Your task to perform on an android device: change keyboard looks Image 0: 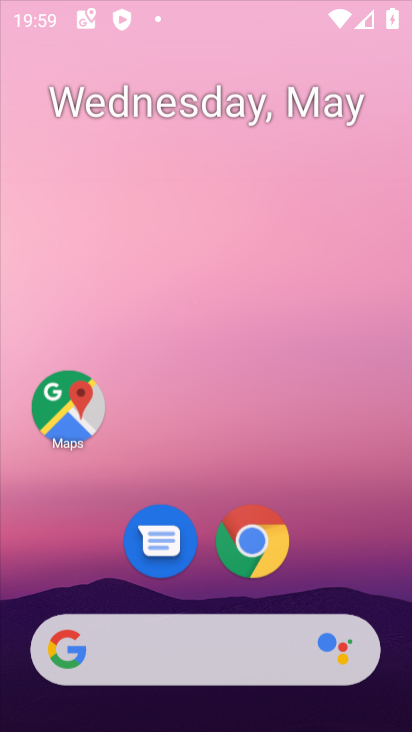
Step 0: click (224, 96)
Your task to perform on an android device: change keyboard looks Image 1: 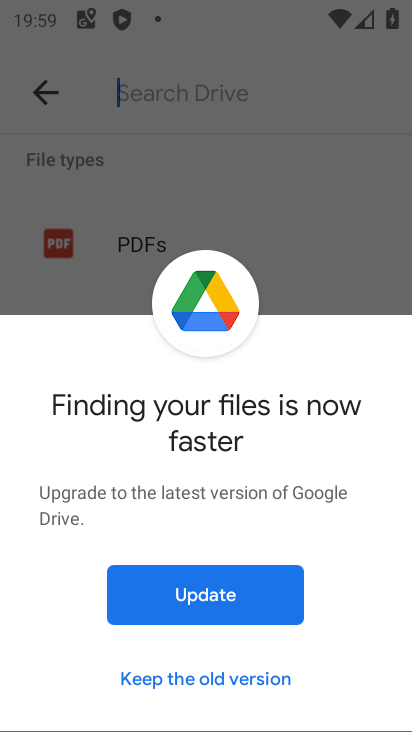
Step 1: press home button
Your task to perform on an android device: change keyboard looks Image 2: 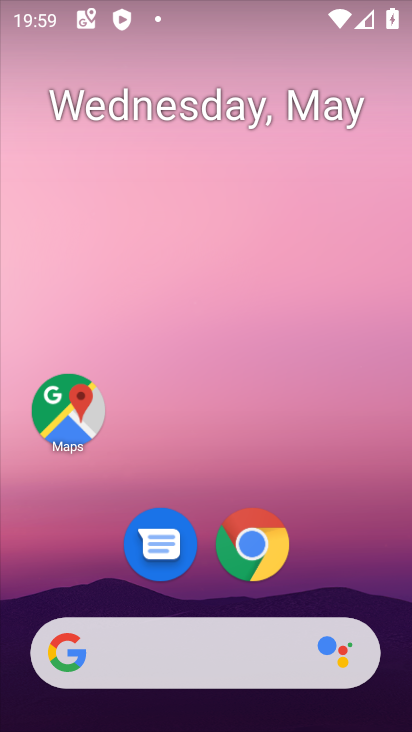
Step 2: drag from (202, 579) to (228, 96)
Your task to perform on an android device: change keyboard looks Image 3: 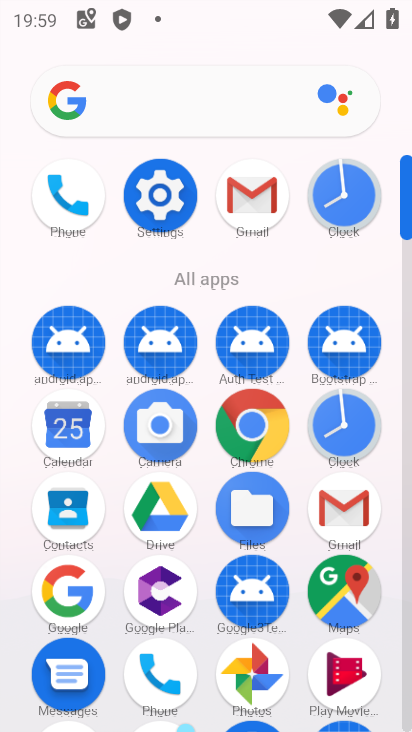
Step 3: click (170, 196)
Your task to perform on an android device: change keyboard looks Image 4: 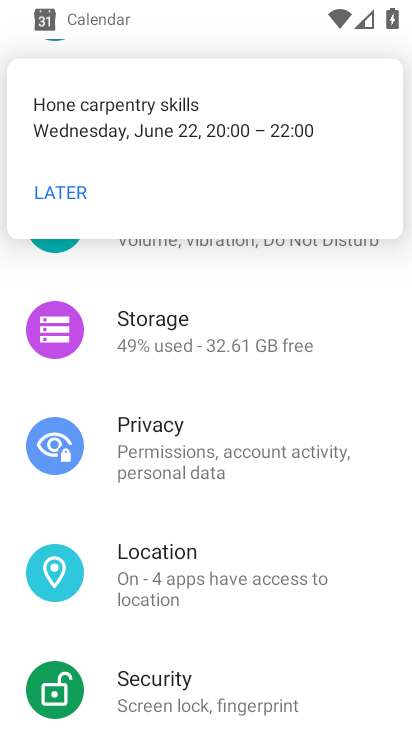
Step 4: drag from (116, 659) to (211, 171)
Your task to perform on an android device: change keyboard looks Image 5: 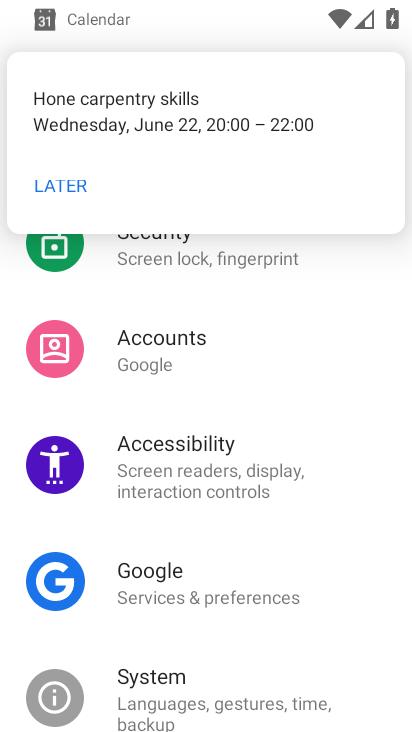
Step 5: drag from (124, 669) to (242, 212)
Your task to perform on an android device: change keyboard looks Image 6: 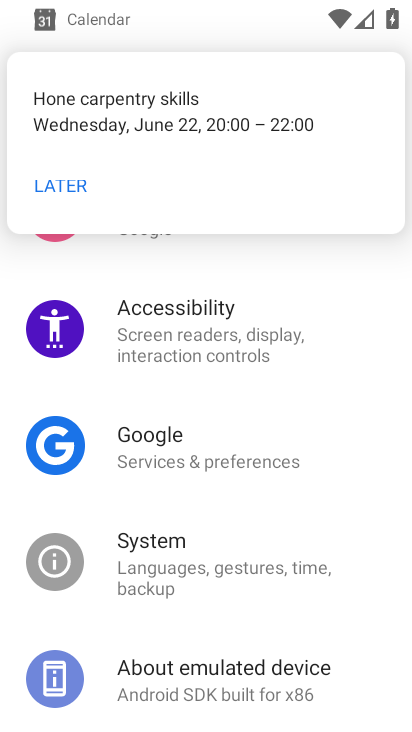
Step 6: click (142, 587)
Your task to perform on an android device: change keyboard looks Image 7: 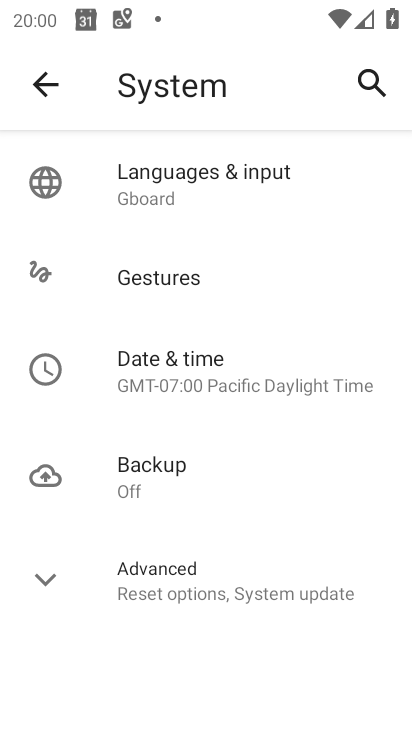
Step 7: click (215, 151)
Your task to perform on an android device: change keyboard looks Image 8: 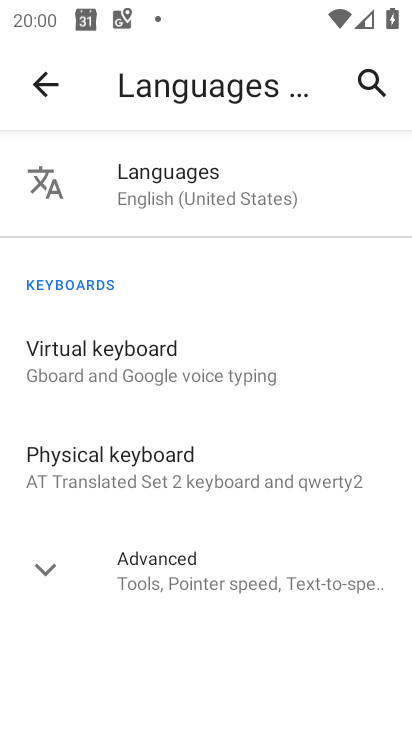
Step 8: click (151, 357)
Your task to perform on an android device: change keyboard looks Image 9: 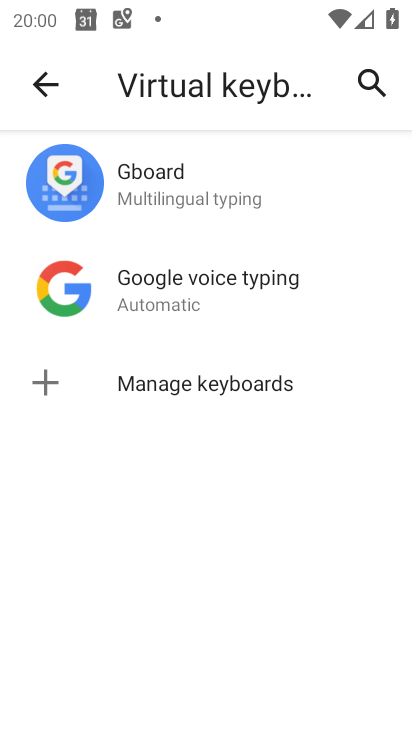
Step 9: click (137, 174)
Your task to perform on an android device: change keyboard looks Image 10: 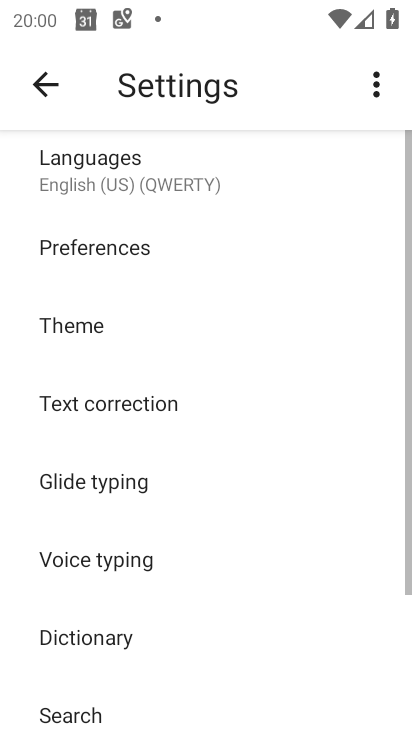
Step 10: click (67, 314)
Your task to perform on an android device: change keyboard looks Image 11: 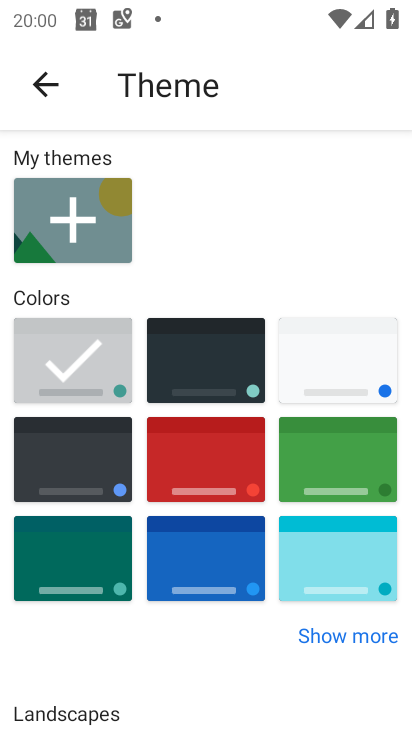
Step 11: click (53, 521)
Your task to perform on an android device: change keyboard looks Image 12: 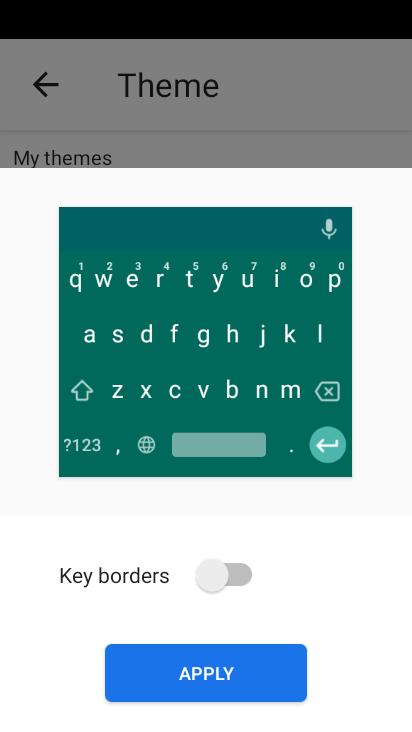
Step 12: click (233, 582)
Your task to perform on an android device: change keyboard looks Image 13: 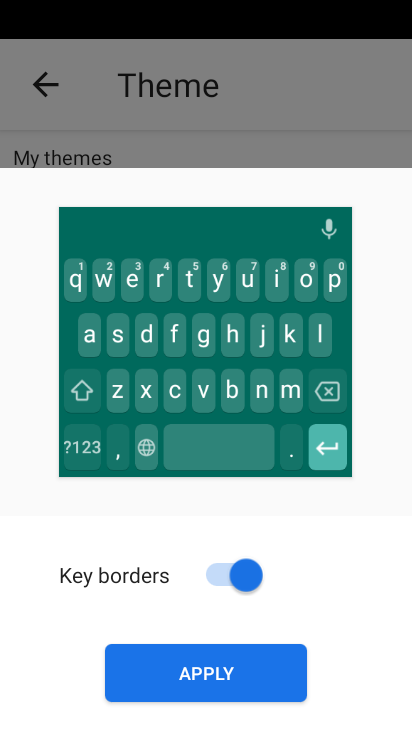
Step 13: click (222, 660)
Your task to perform on an android device: change keyboard looks Image 14: 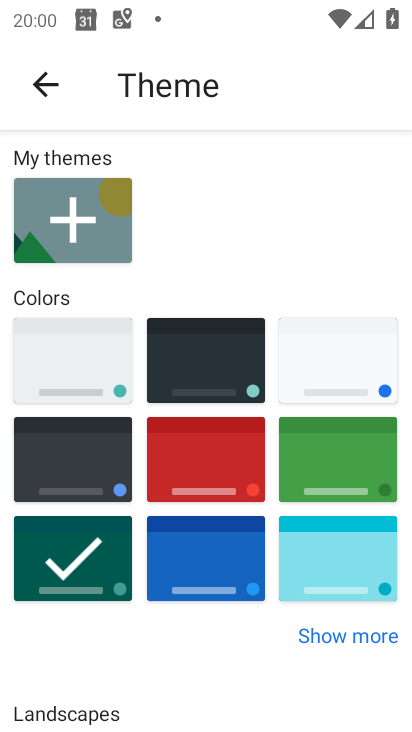
Step 14: task complete